Your task to perform on an android device: change text size in settings app Image 0: 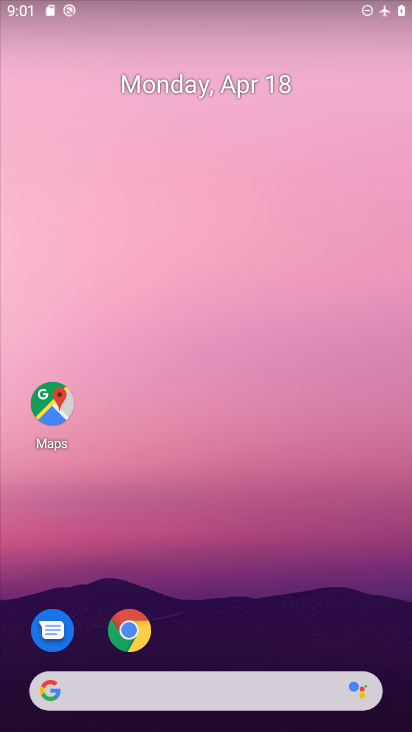
Step 0: drag from (216, 571) to (258, 342)
Your task to perform on an android device: change text size in settings app Image 1: 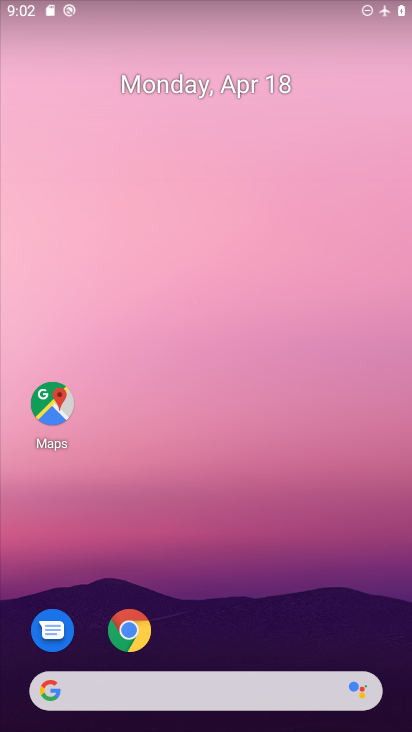
Step 1: drag from (219, 651) to (403, 31)
Your task to perform on an android device: change text size in settings app Image 2: 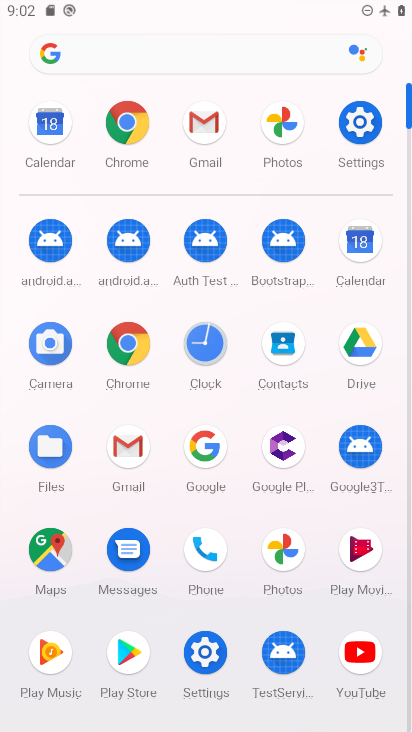
Step 2: click (360, 129)
Your task to perform on an android device: change text size in settings app Image 3: 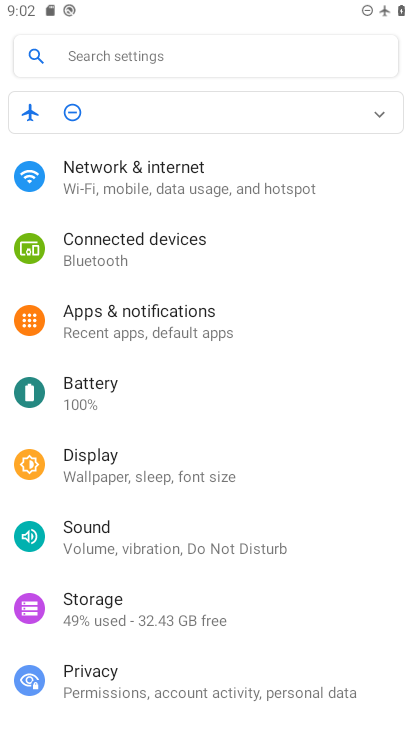
Step 3: click (150, 478)
Your task to perform on an android device: change text size in settings app Image 4: 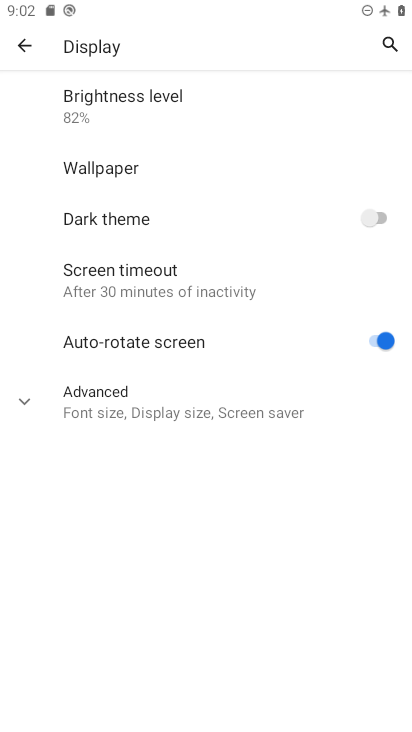
Step 4: click (117, 407)
Your task to perform on an android device: change text size in settings app Image 5: 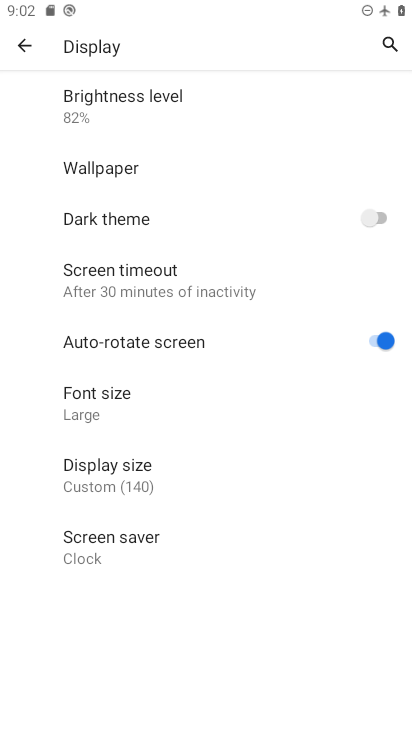
Step 5: click (113, 415)
Your task to perform on an android device: change text size in settings app Image 6: 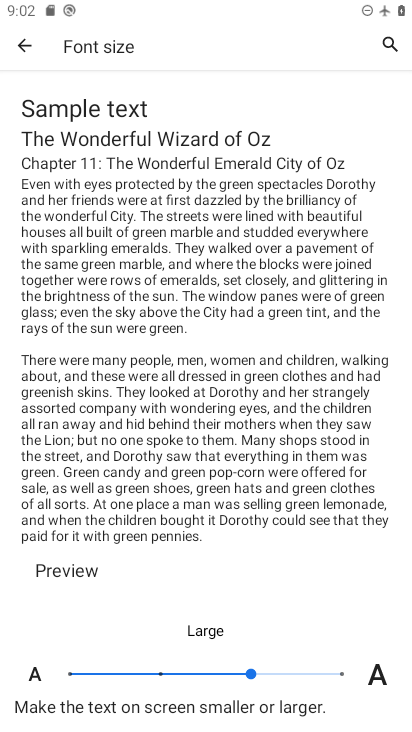
Step 6: click (341, 671)
Your task to perform on an android device: change text size in settings app Image 7: 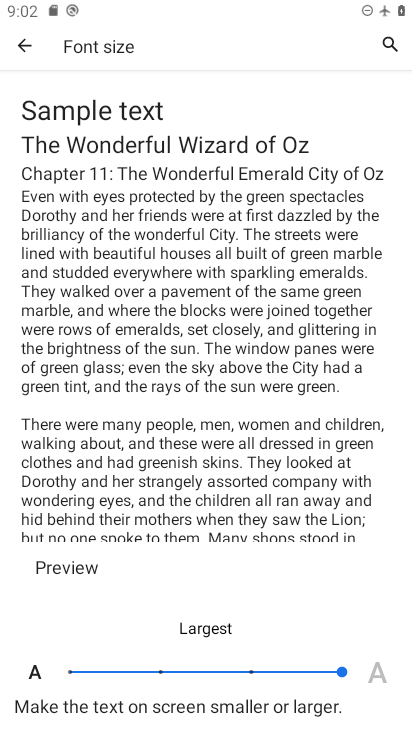
Step 7: task complete